Your task to perform on an android device: change the clock display to digital Image 0: 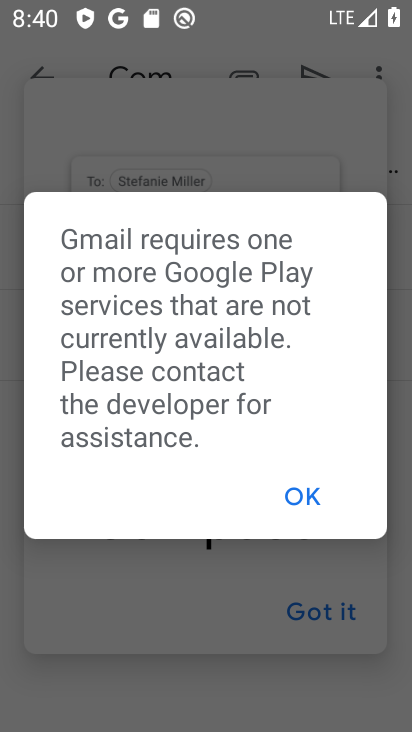
Step 0: click (281, 497)
Your task to perform on an android device: change the clock display to digital Image 1: 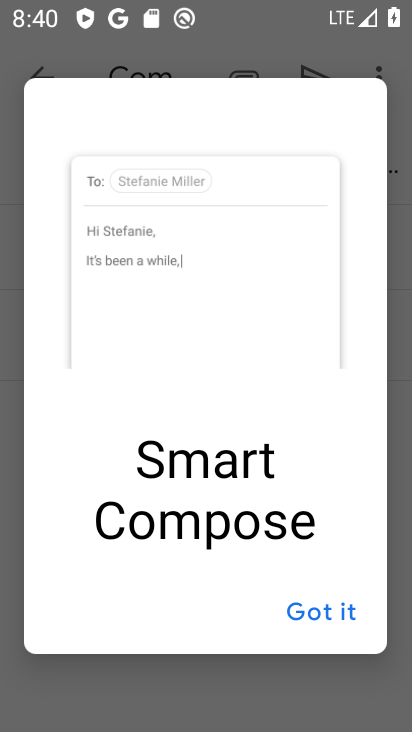
Step 1: click (303, 597)
Your task to perform on an android device: change the clock display to digital Image 2: 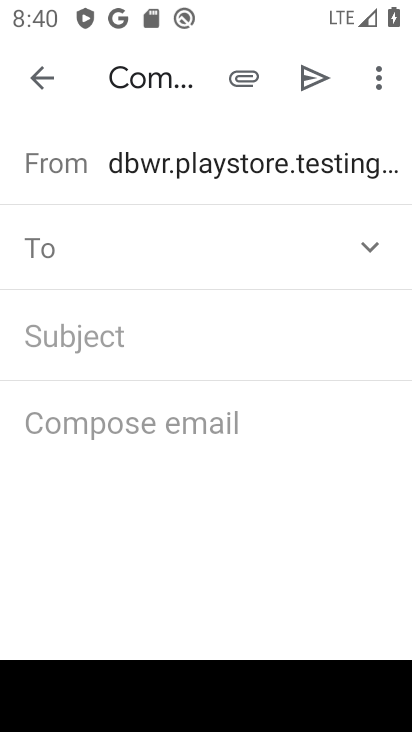
Step 2: press back button
Your task to perform on an android device: change the clock display to digital Image 3: 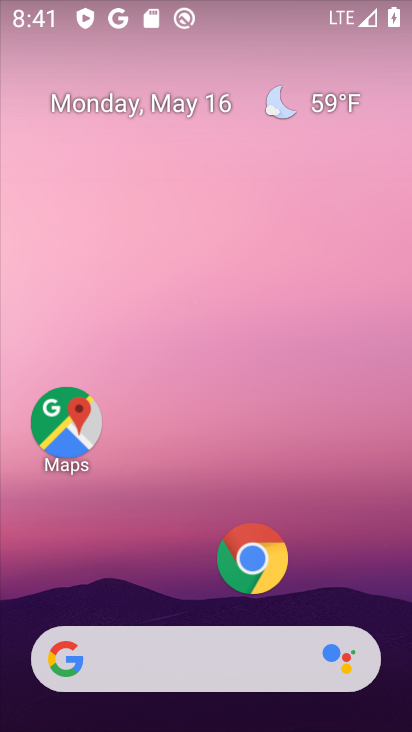
Step 3: drag from (164, 525) to (292, 61)
Your task to perform on an android device: change the clock display to digital Image 4: 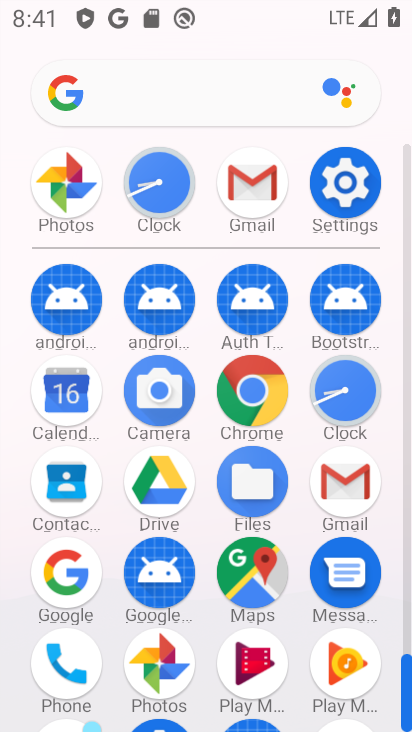
Step 4: click (153, 166)
Your task to perform on an android device: change the clock display to digital Image 5: 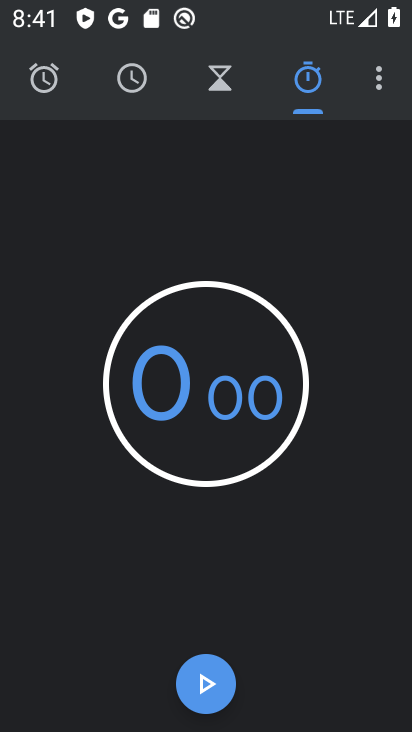
Step 5: click (381, 78)
Your task to perform on an android device: change the clock display to digital Image 6: 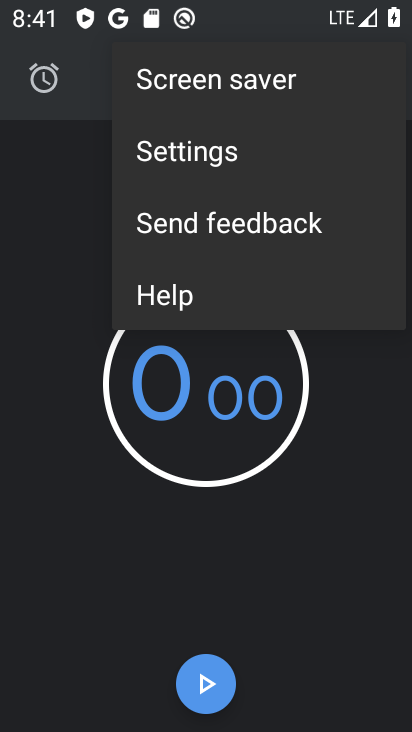
Step 6: click (234, 145)
Your task to perform on an android device: change the clock display to digital Image 7: 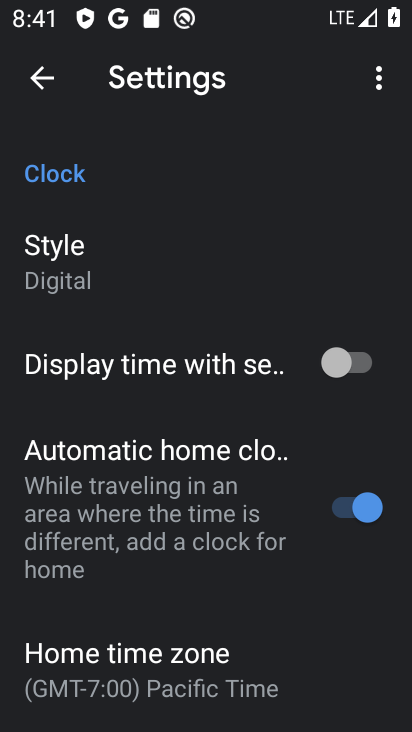
Step 7: task complete